Your task to perform on an android device: Go to Yahoo.com Image 0: 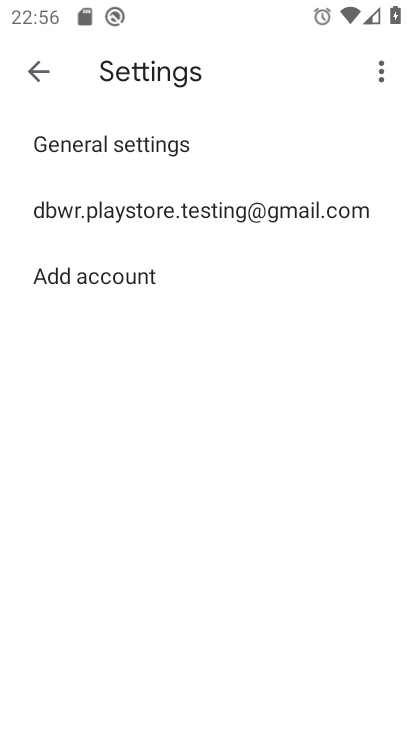
Step 0: press home button
Your task to perform on an android device: Go to Yahoo.com Image 1: 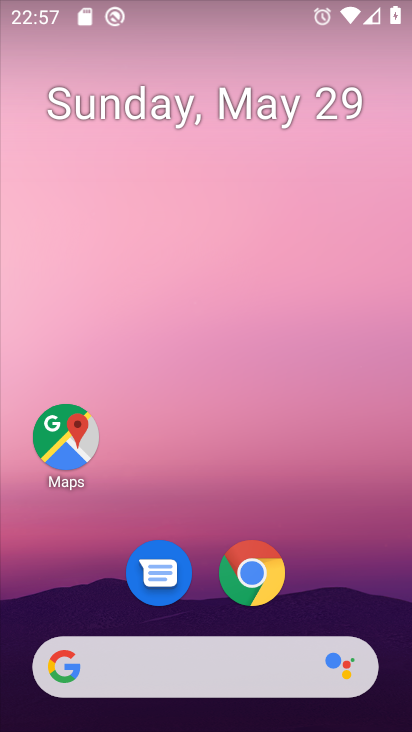
Step 1: drag from (209, 485) to (251, 74)
Your task to perform on an android device: Go to Yahoo.com Image 2: 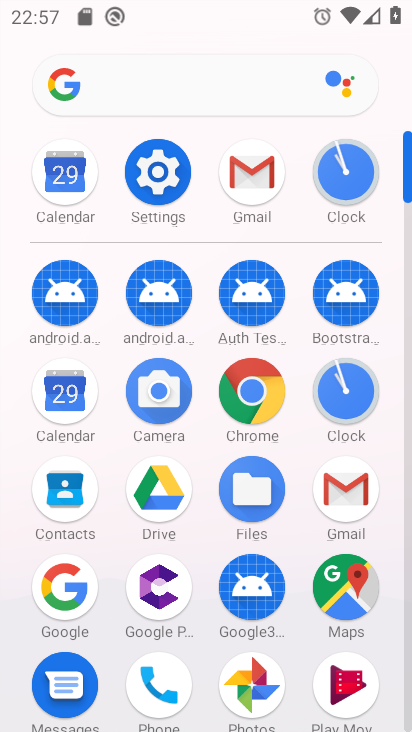
Step 2: click (251, 74)
Your task to perform on an android device: Go to Yahoo.com Image 3: 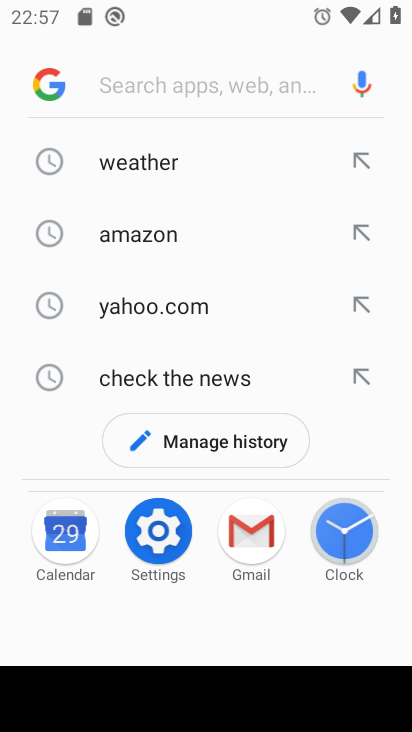
Step 3: type "yahoo.com"
Your task to perform on an android device: Go to Yahoo.com Image 4: 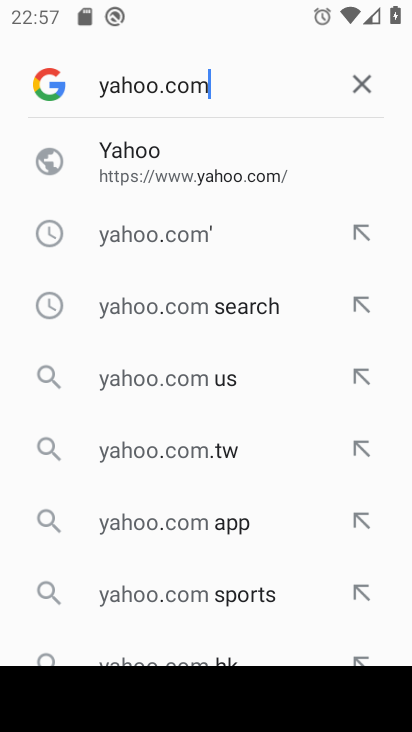
Step 4: click (152, 156)
Your task to perform on an android device: Go to Yahoo.com Image 5: 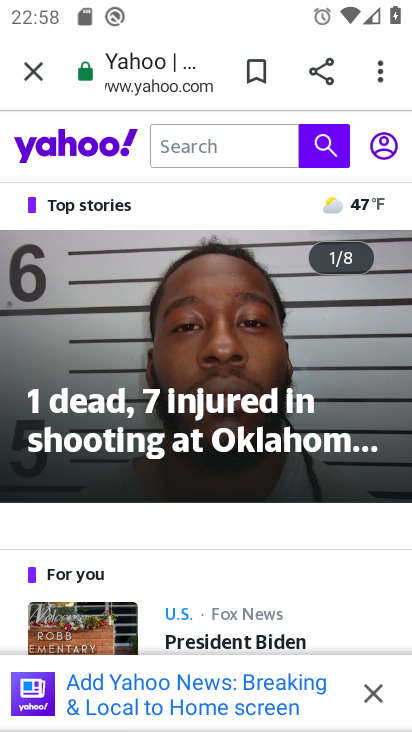
Step 5: task complete